Your task to perform on an android device: see sites visited before in the chrome app Image 0: 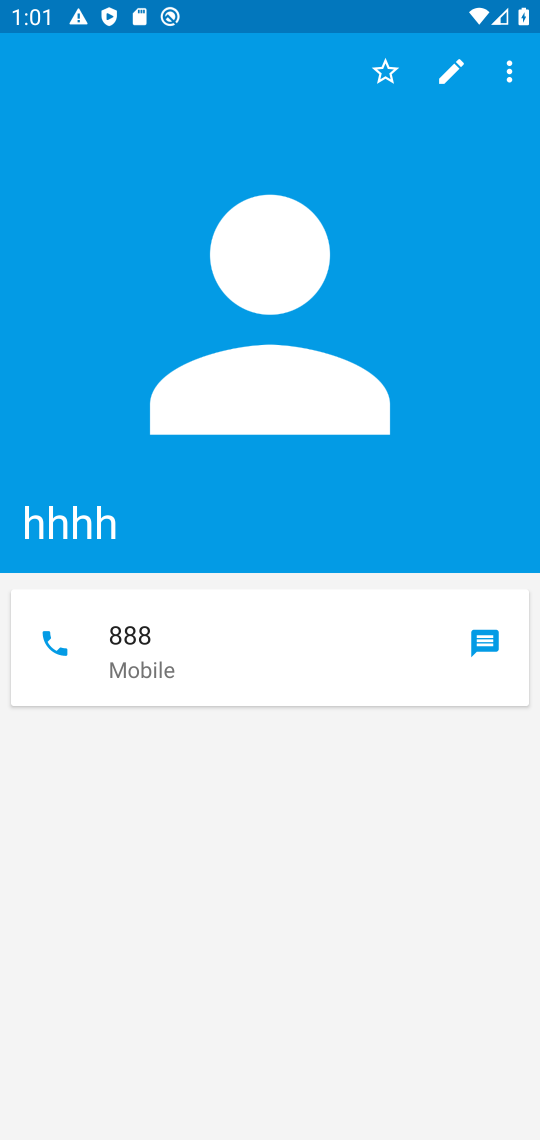
Step 0: press home button
Your task to perform on an android device: see sites visited before in the chrome app Image 1: 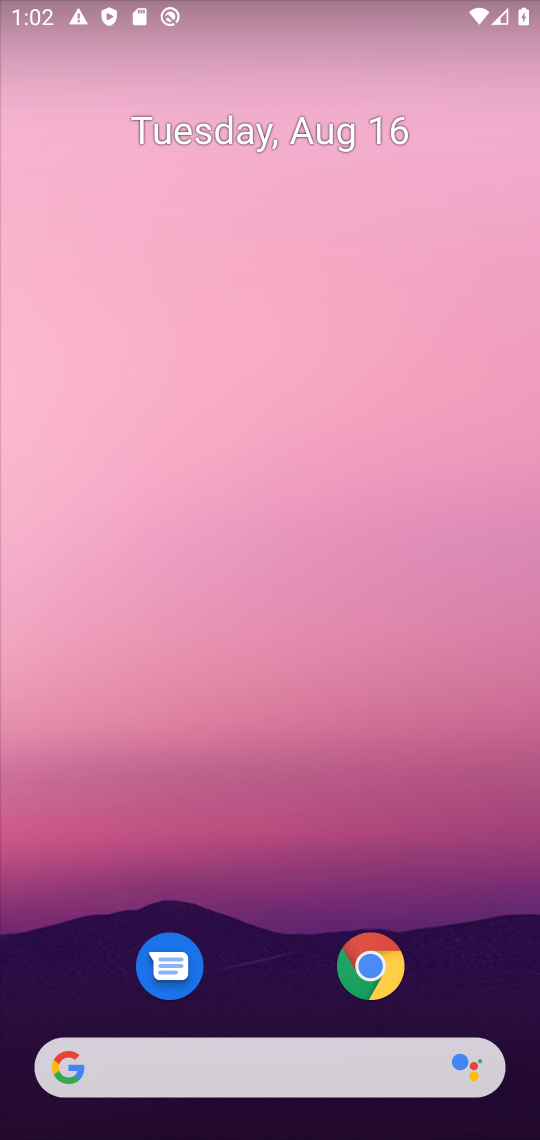
Step 1: click (364, 966)
Your task to perform on an android device: see sites visited before in the chrome app Image 2: 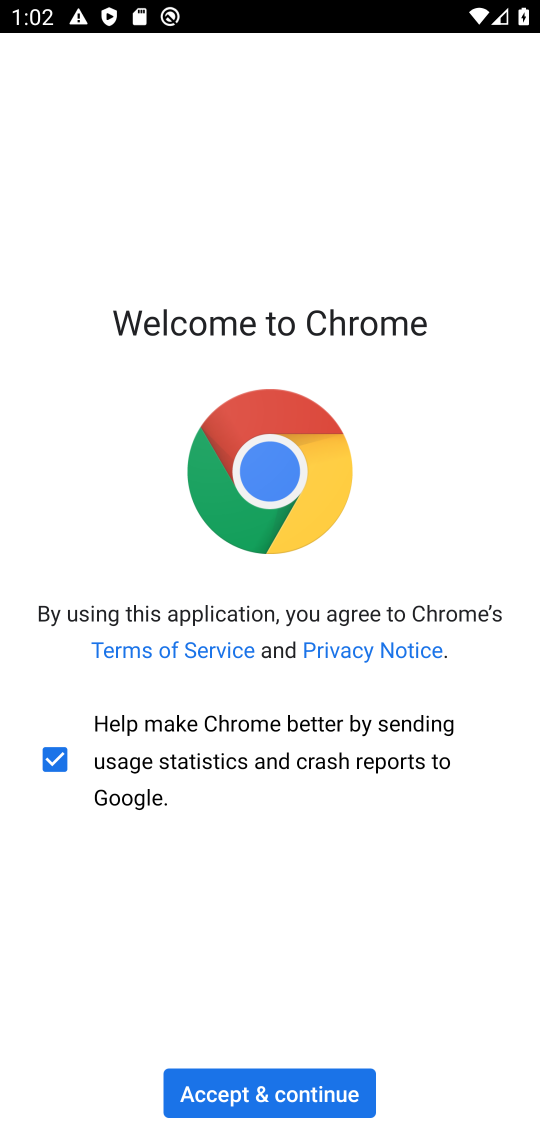
Step 2: click (196, 1099)
Your task to perform on an android device: see sites visited before in the chrome app Image 3: 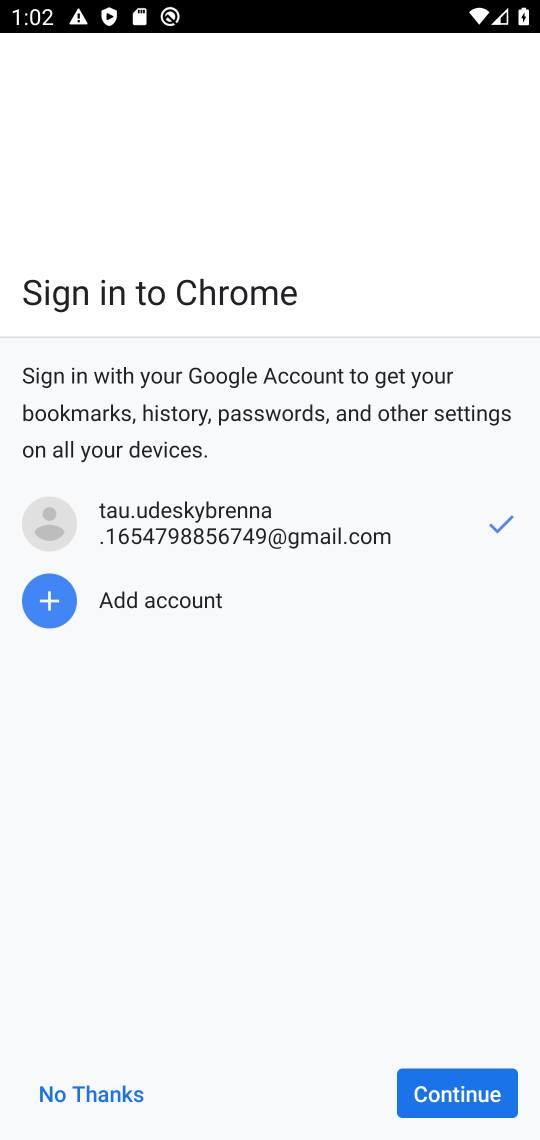
Step 3: click (460, 1089)
Your task to perform on an android device: see sites visited before in the chrome app Image 4: 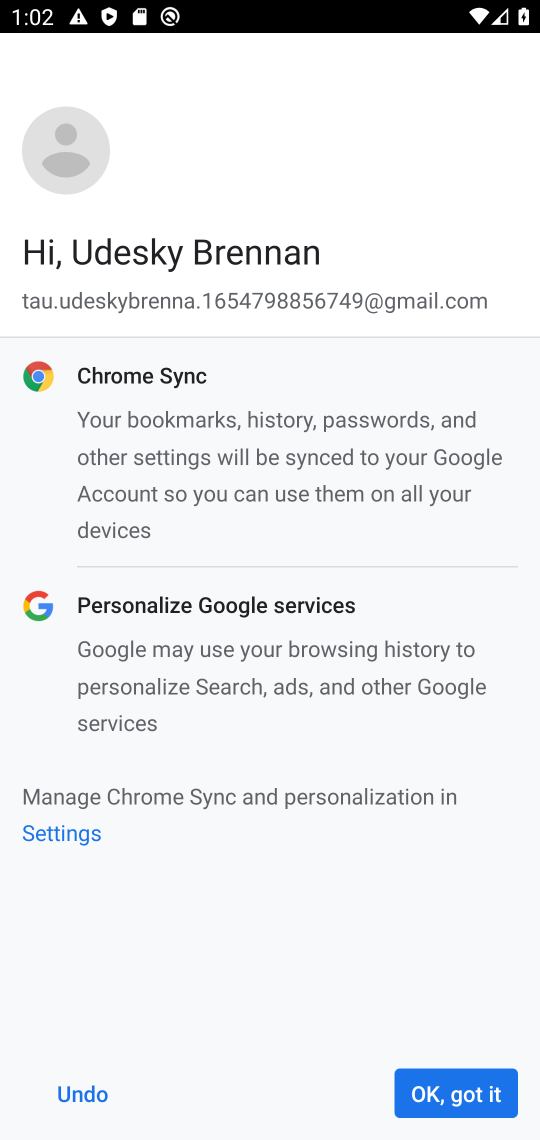
Step 4: click (438, 1095)
Your task to perform on an android device: see sites visited before in the chrome app Image 5: 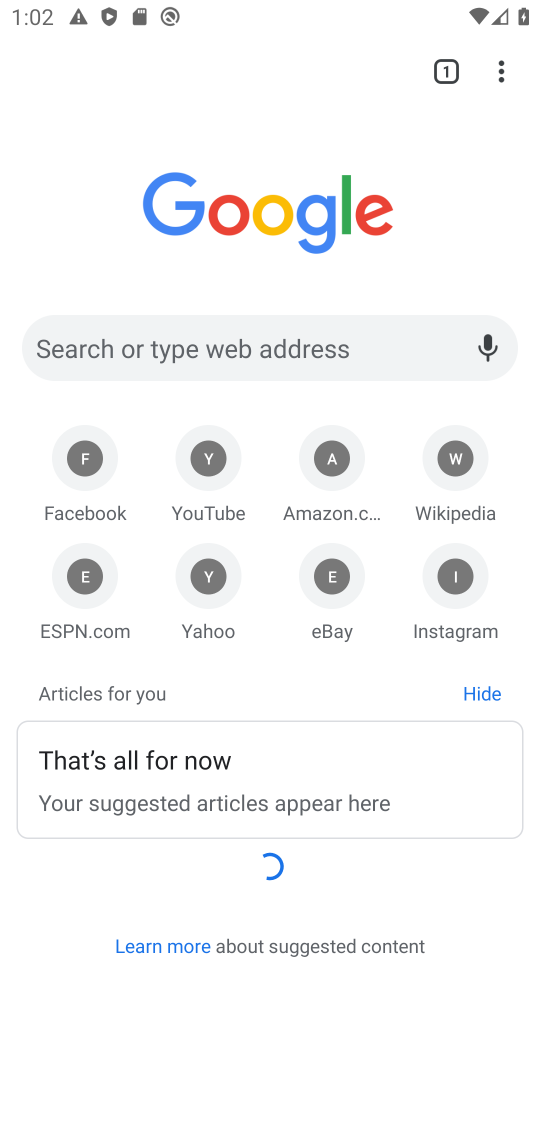
Step 5: click (496, 66)
Your task to perform on an android device: see sites visited before in the chrome app Image 6: 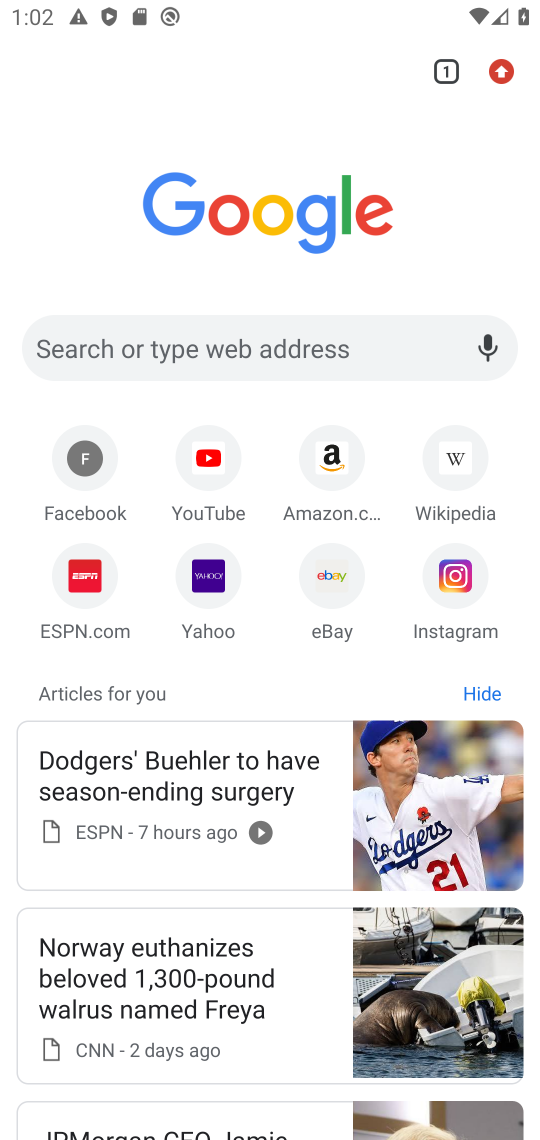
Step 6: click (500, 77)
Your task to perform on an android device: see sites visited before in the chrome app Image 7: 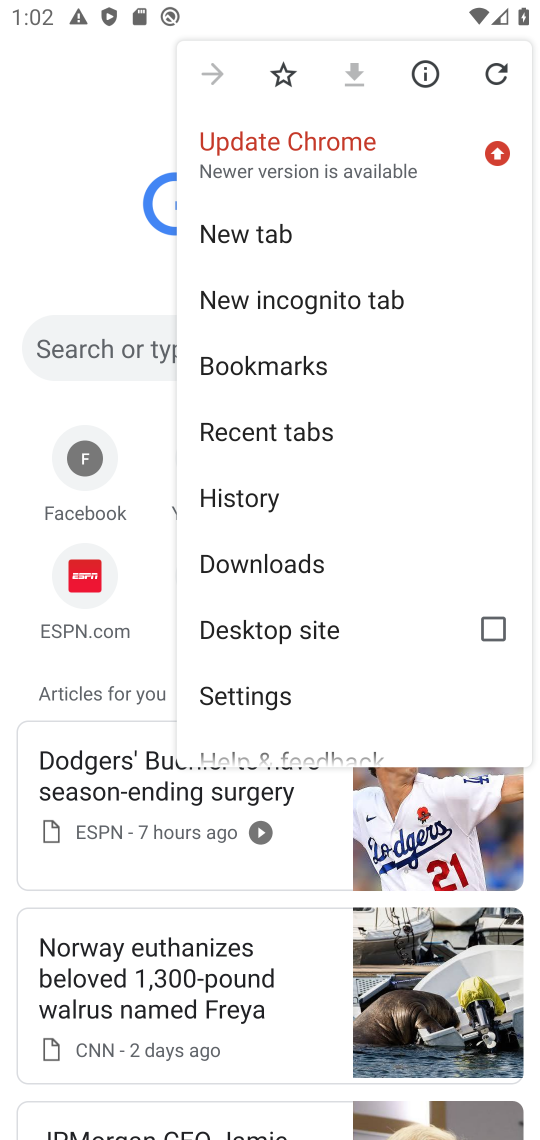
Step 7: click (242, 492)
Your task to perform on an android device: see sites visited before in the chrome app Image 8: 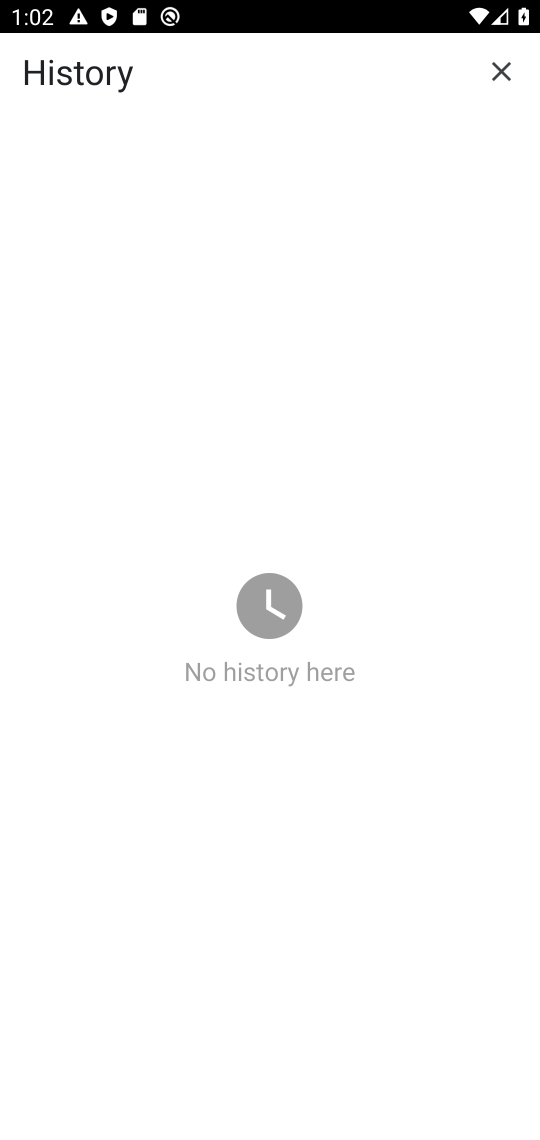
Step 8: task complete